Your task to perform on an android device: turn off location Image 0: 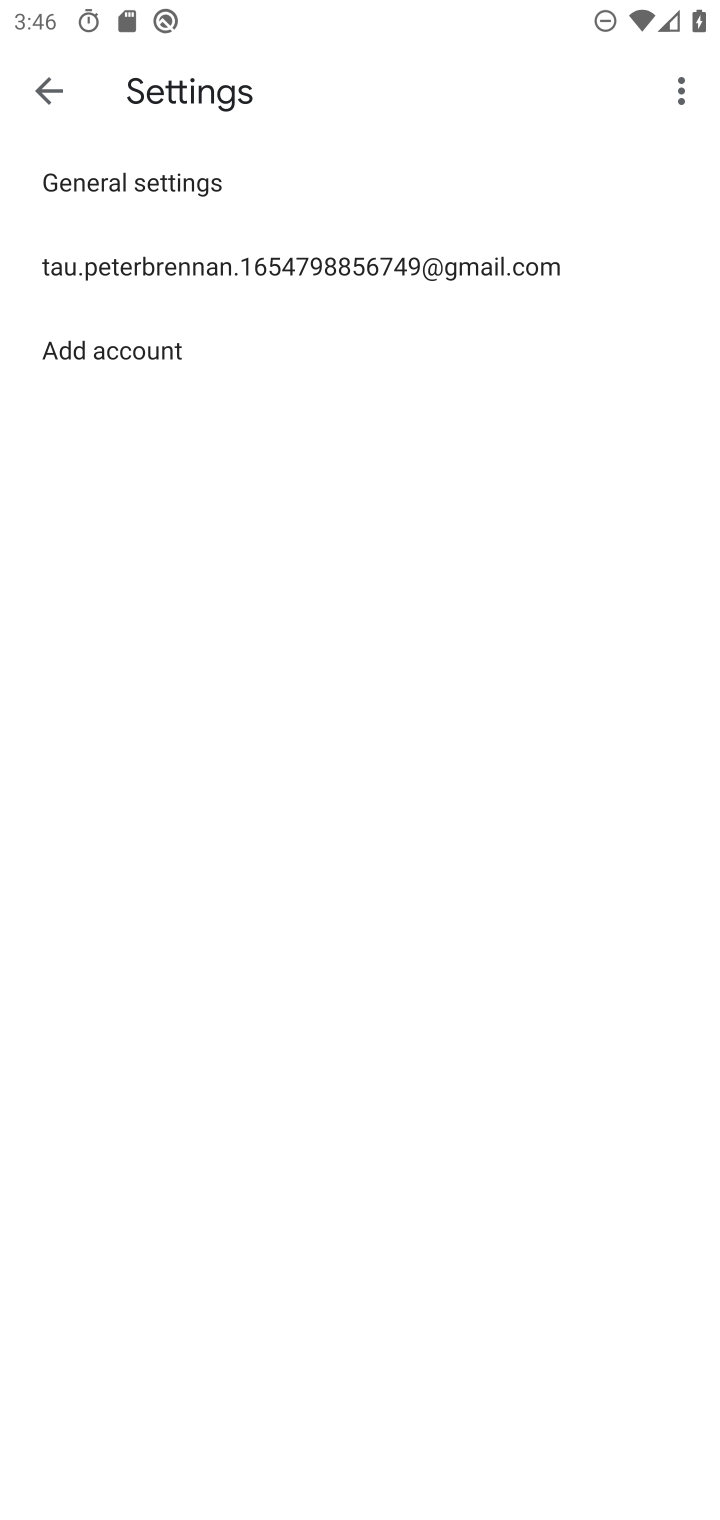
Step 0: press back button
Your task to perform on an android device: turn off location Image 1: 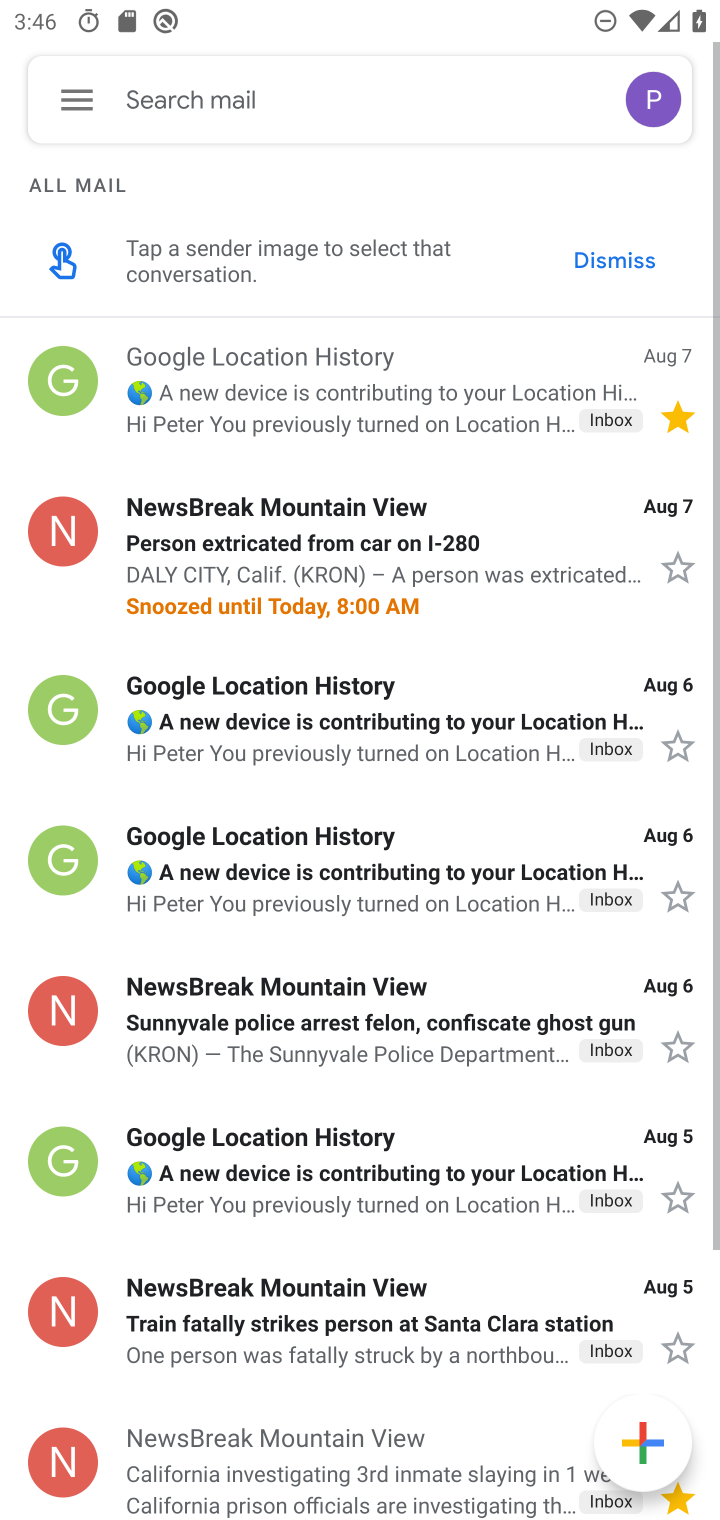
Step 1: press back button
Your task to perform on an android device: turn off location Image 2: 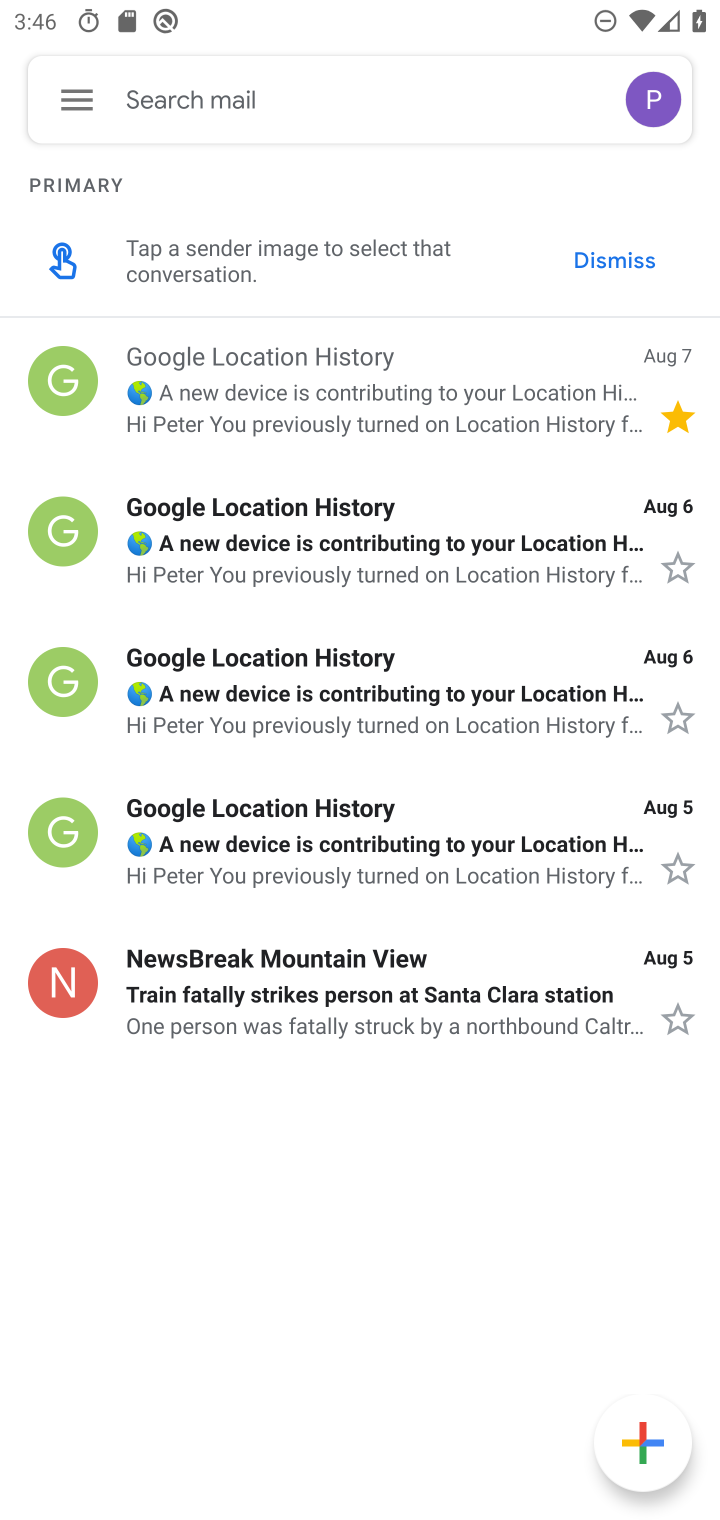
Step 2: press back button
Your task to perform on an android device: turn off location Image 3: 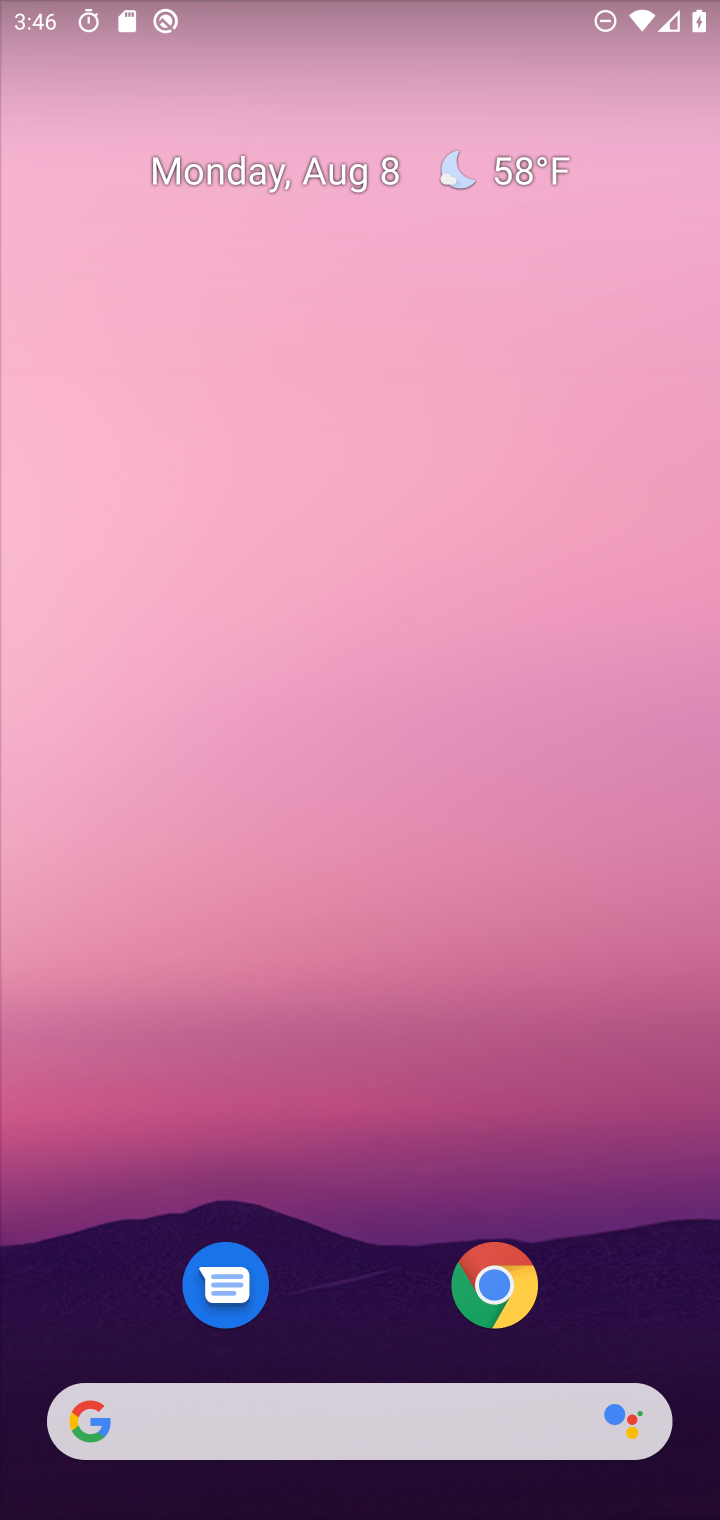
Step 3: drag from (414, 1047) to (456, 5)
Your task to perform on an android device: turn off location Image 4: 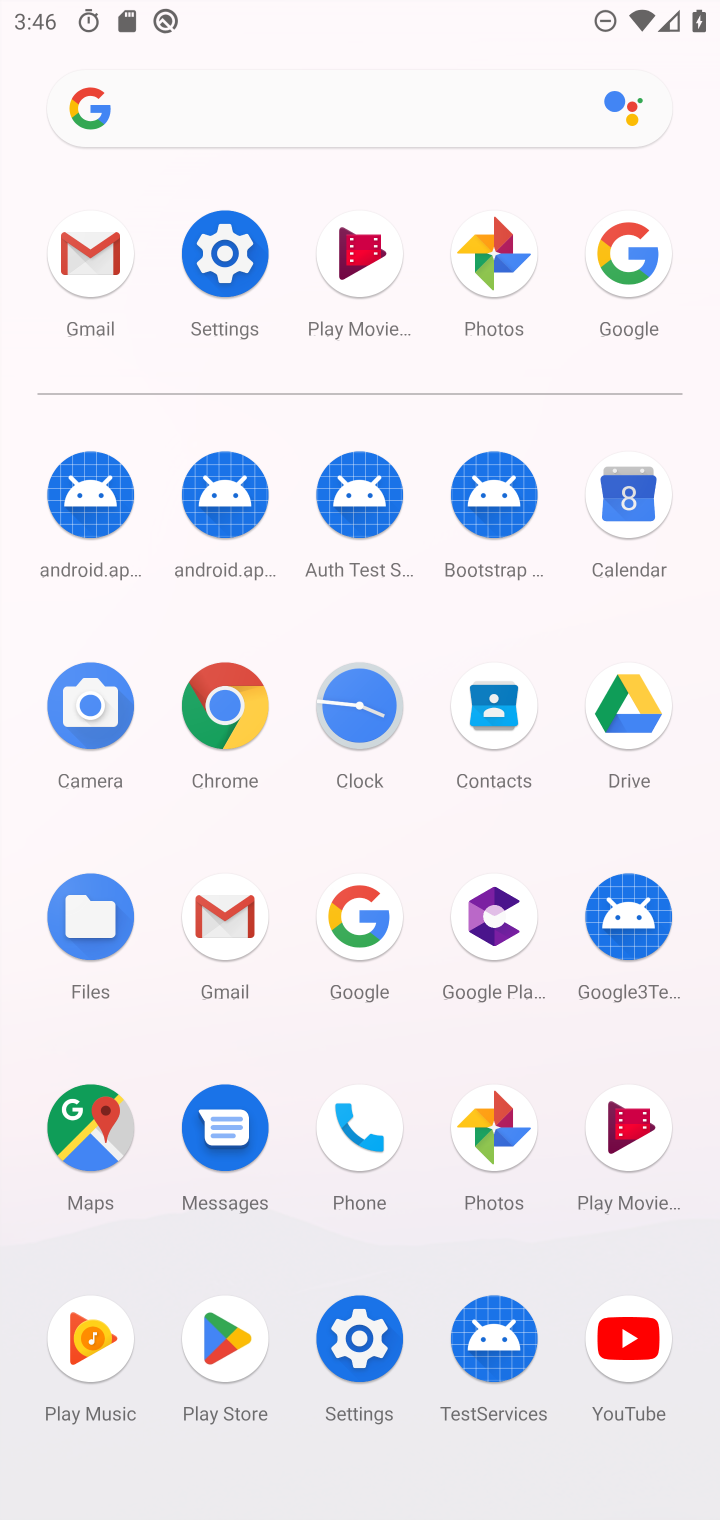
Step 4: click (231, 241)
Your task to perform on an android device: turn off location Image 5: 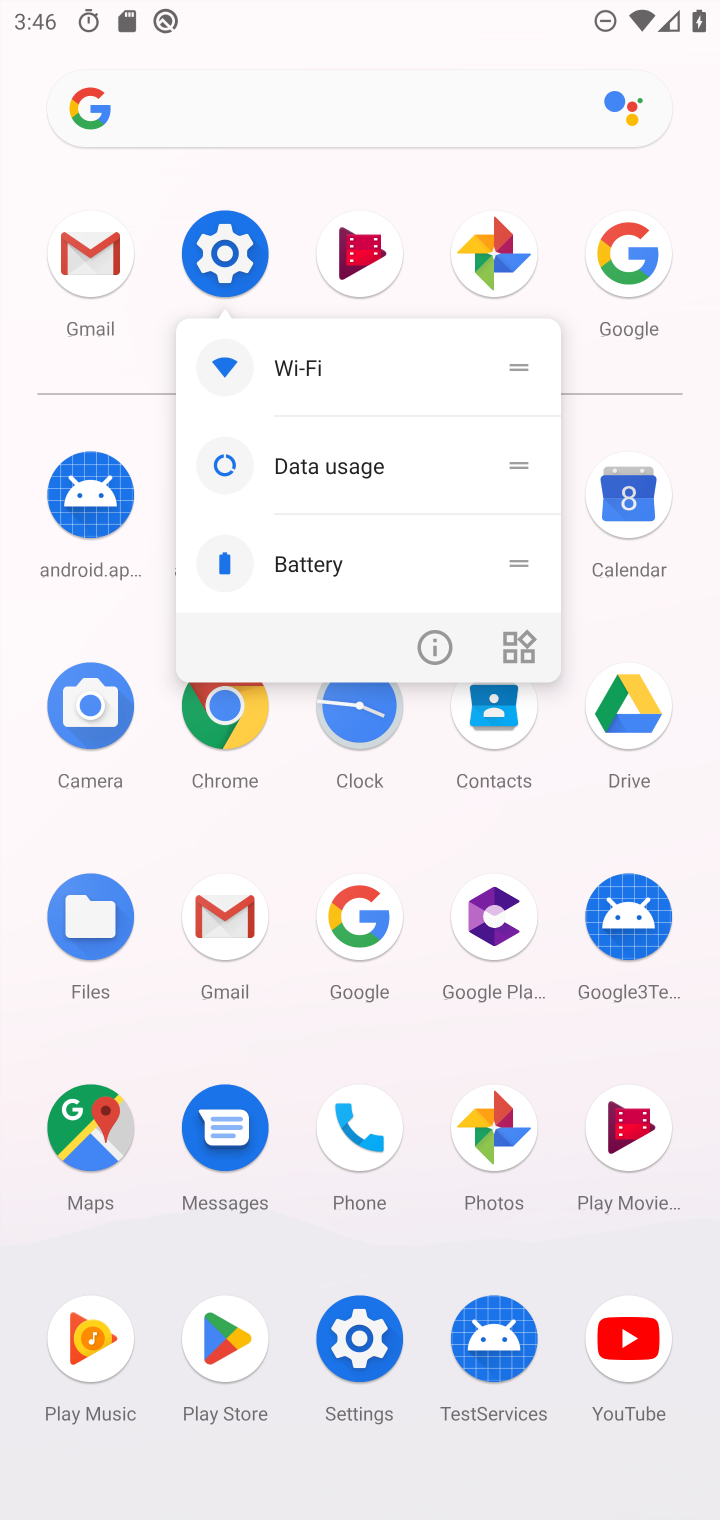
Step 5: click (245, 247)
Your task to perform on an android device: turn off location Image 6: 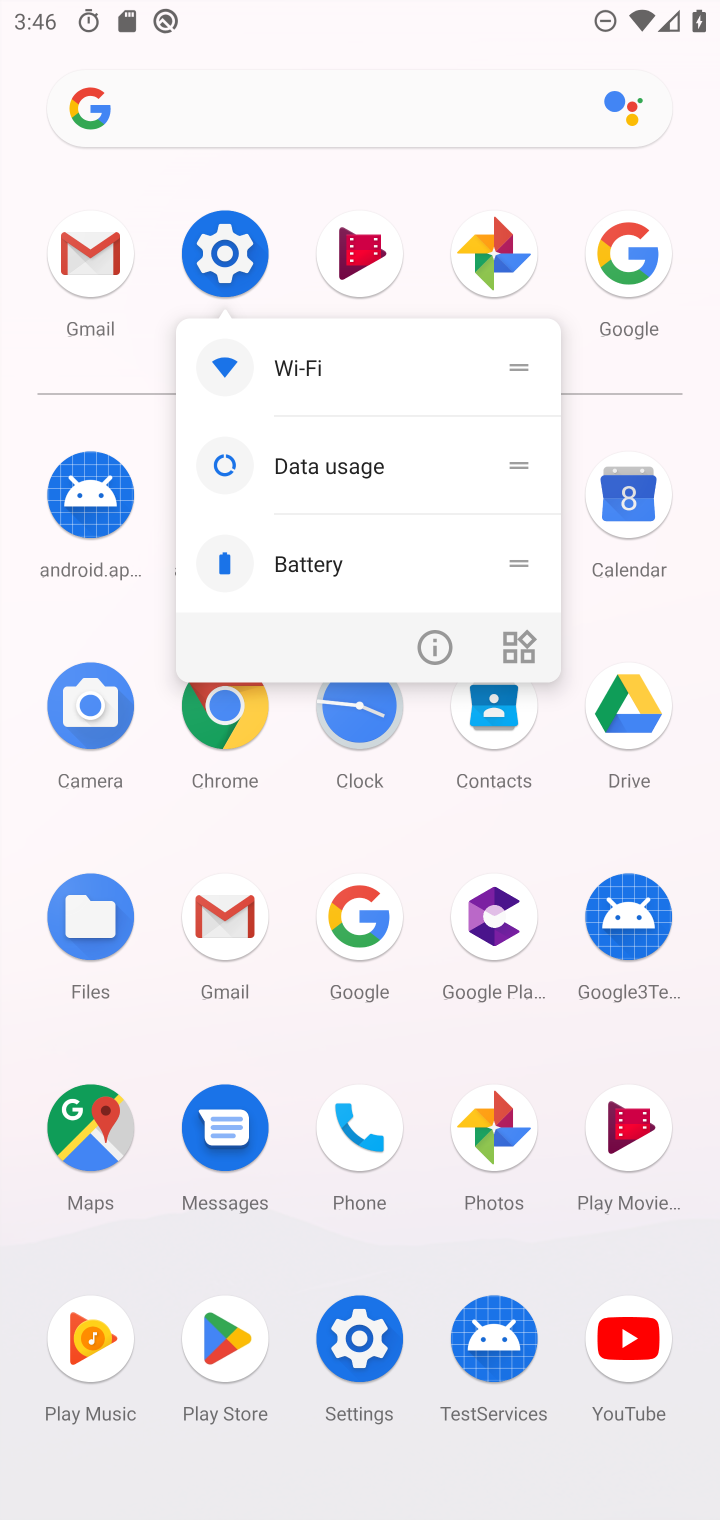
Step 6: click (188, 259)
Your task to perform on an android device: turn off location Image 7: 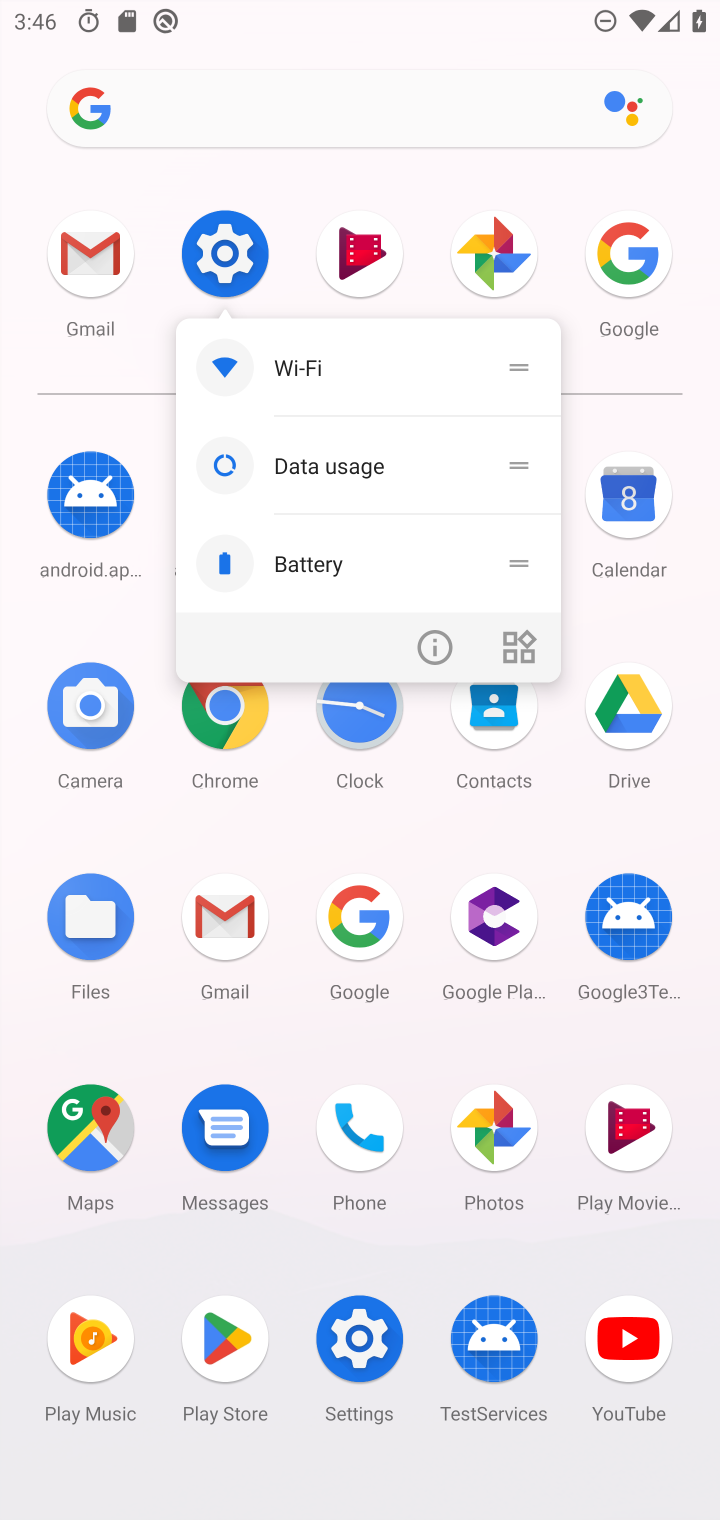
Step 7: click (210, 239)
Your task to perform on an android device: turn off location Image 8: 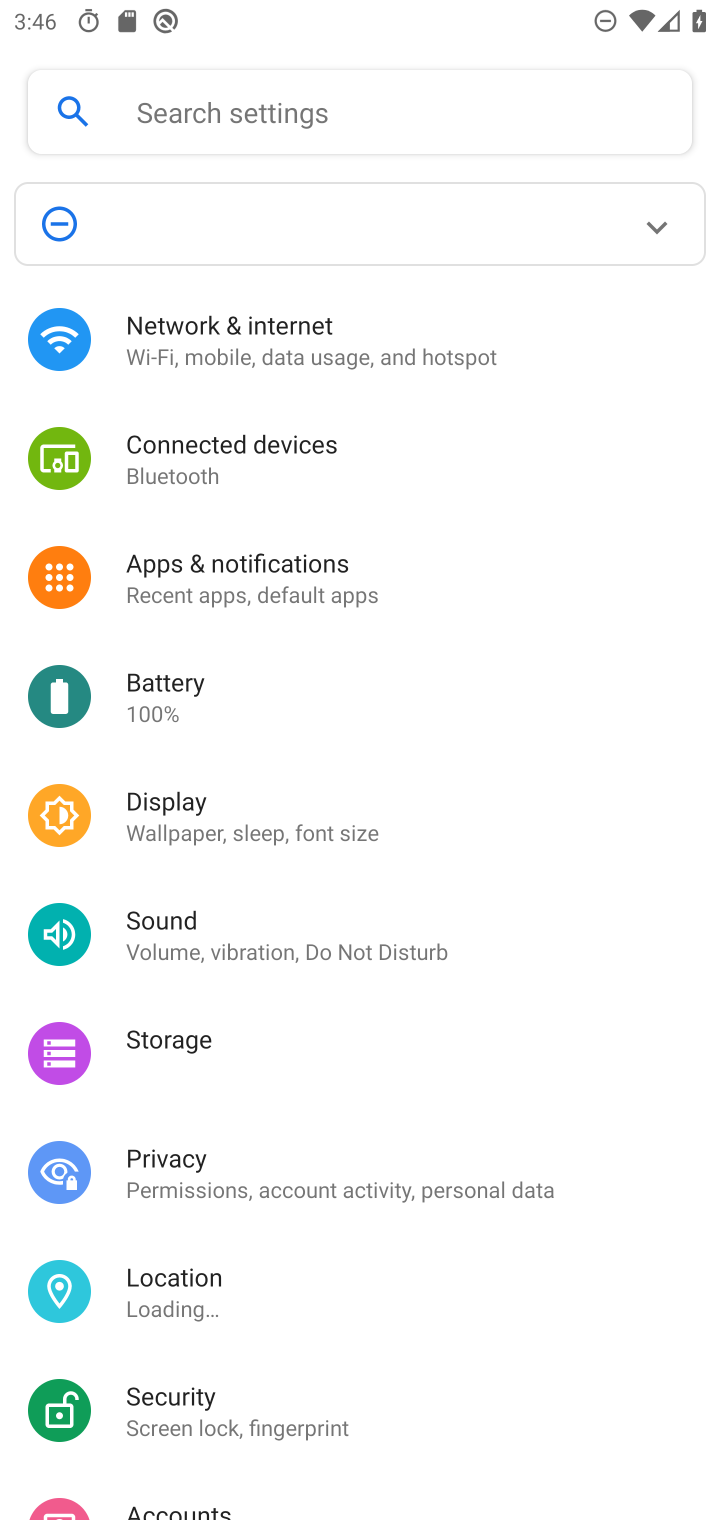
Step 8: click (222, 273)
Your task to perform on an android device: turn off location Image 9: 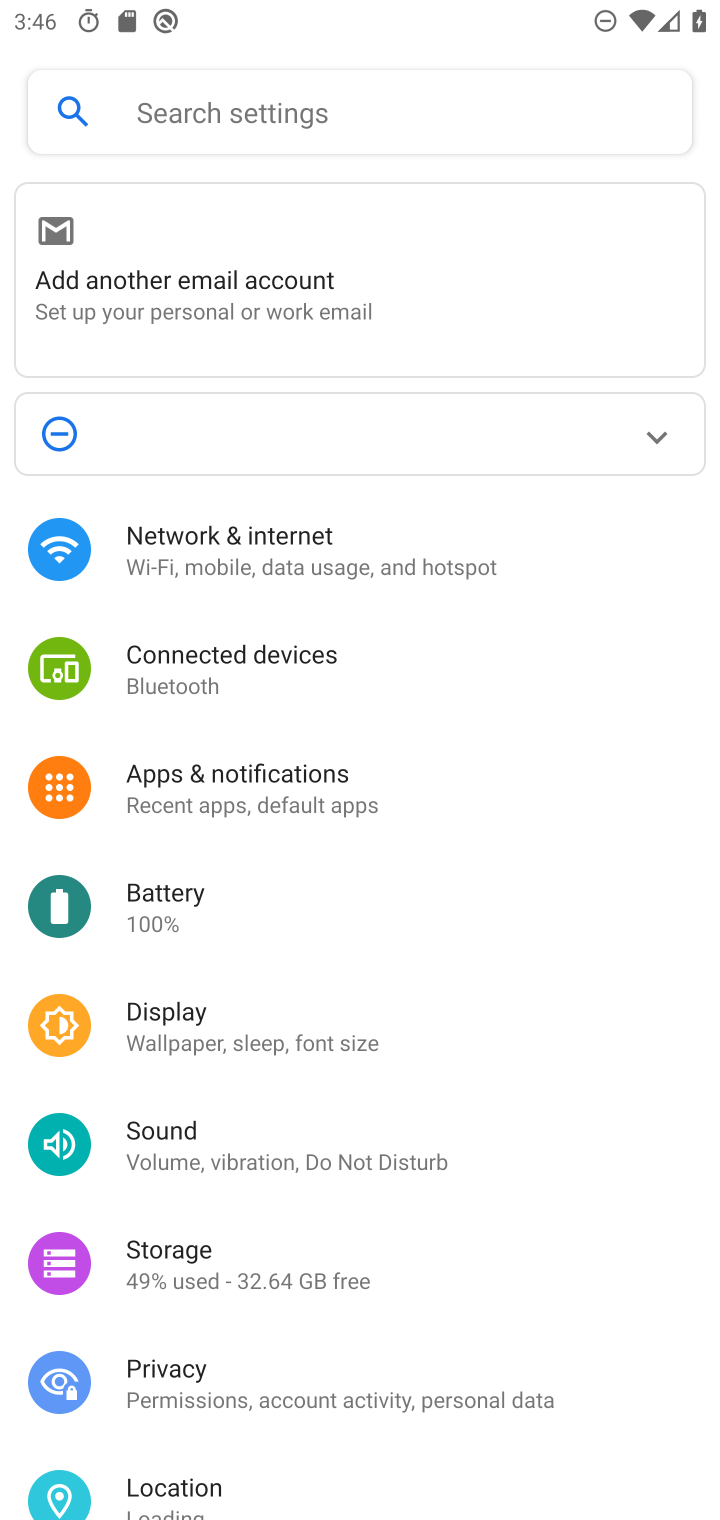
Step 9: click (204, 1496)
Your task to perform on an android device: turn off location Image 10: 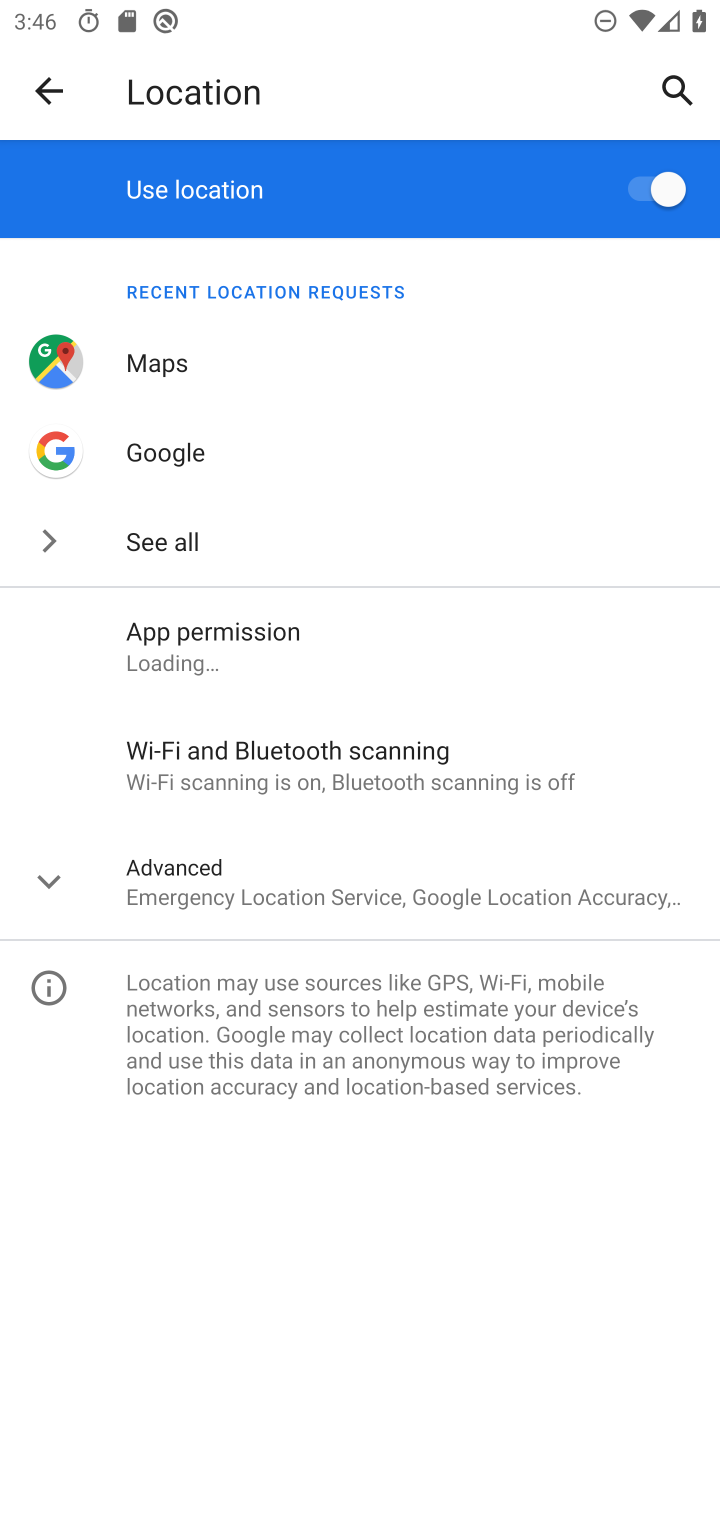
Step 10: click (675, 176)
Your task to perform on an android device: turn off location Image 11: 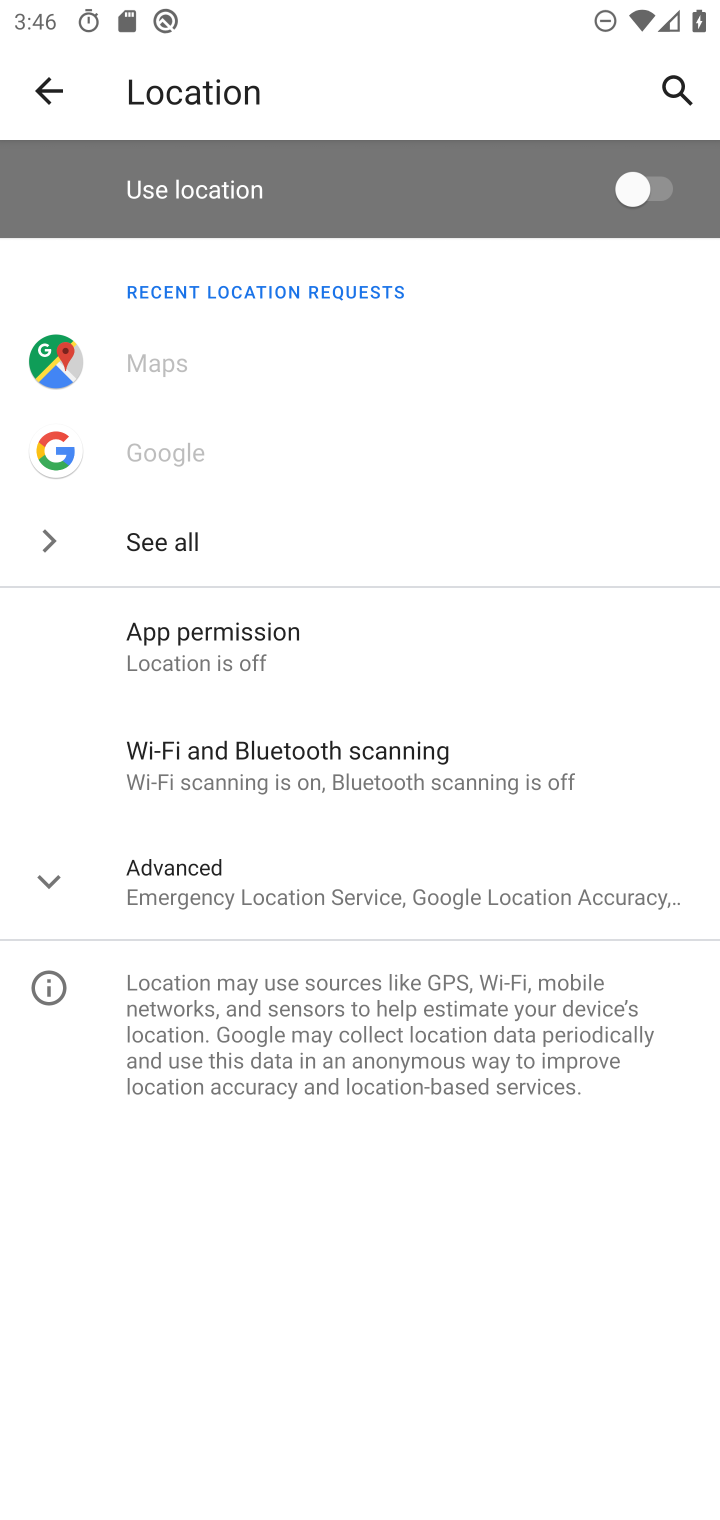
Step 11: task complete